Your task to perform on an android device: create a new album in the google photos Image 0: 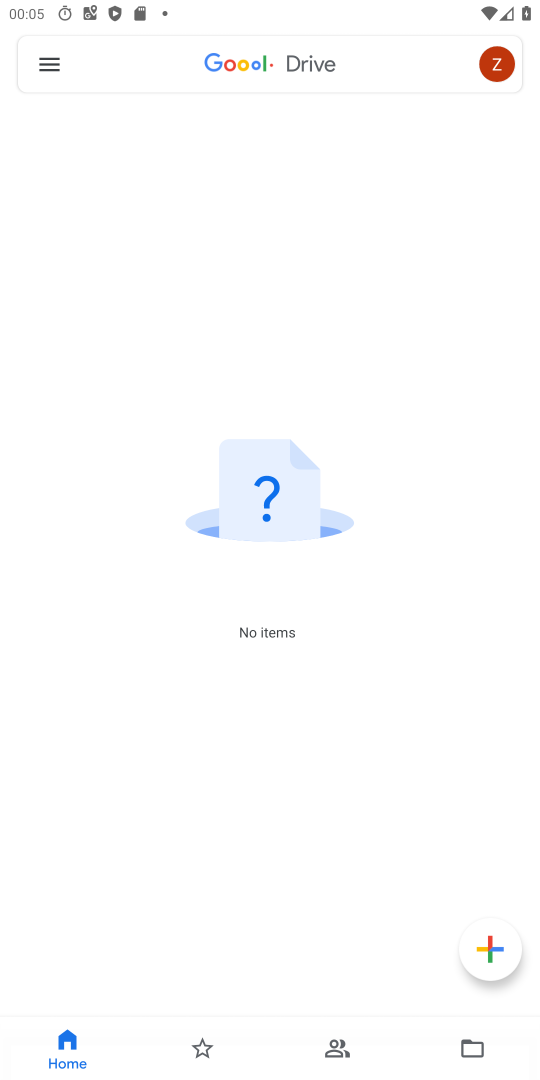
Step 0: press home button
Your task to perform on an android device: create a new album in the google photos Image 1: 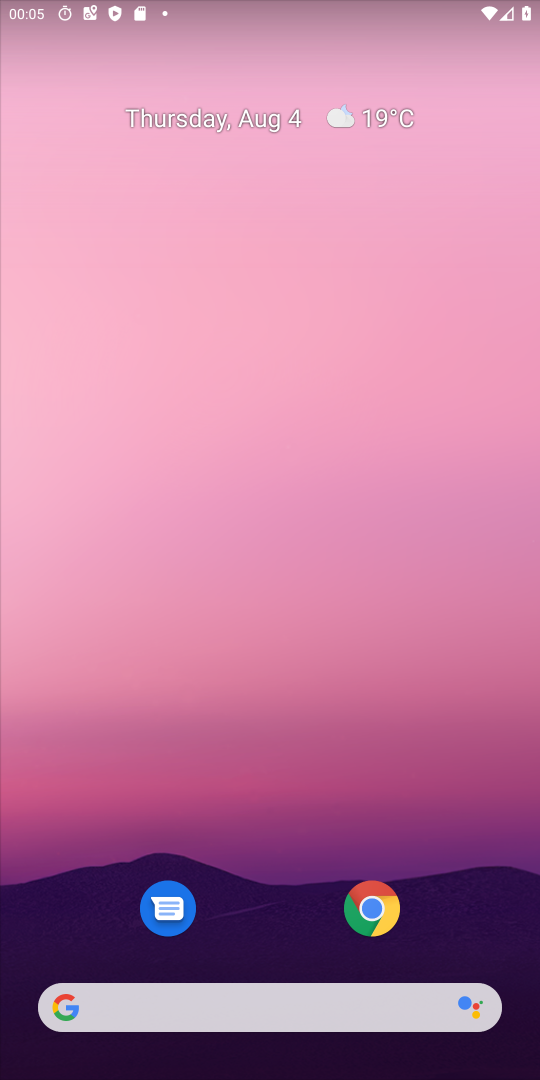
Step 1: drag from (314, 1043) to (193, 392)
Your task to perform on an android device: create a new album in the google photos Image 2: 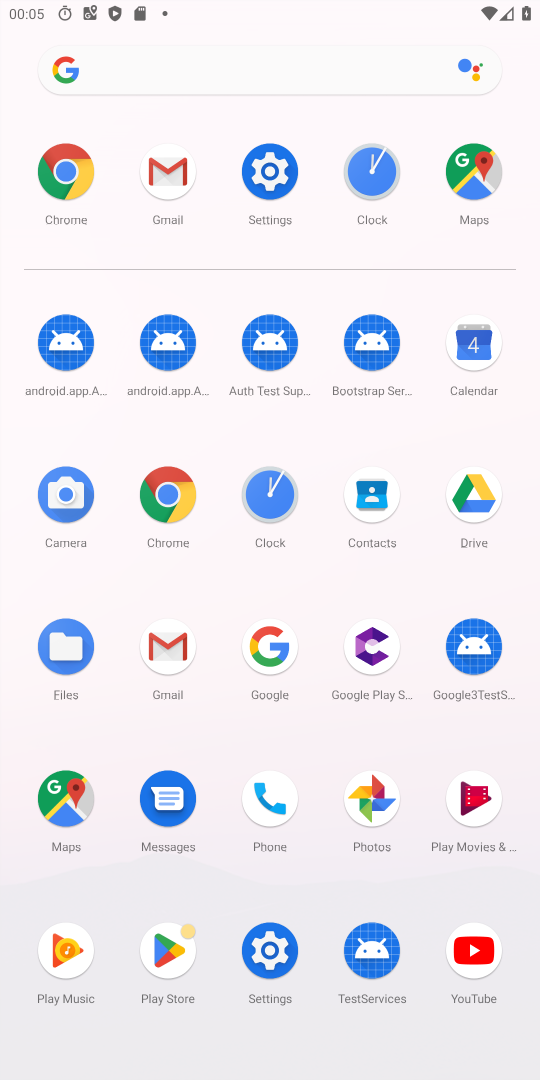
Step 2: click (383, 817)
Your task to perform on an android device: create a new album in the google photos Image 3: 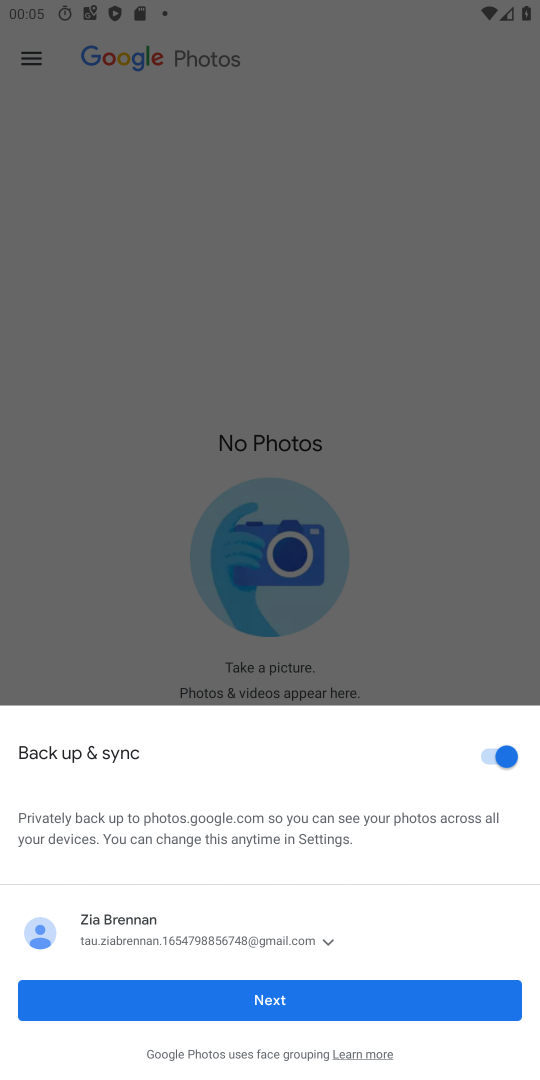
Step 3: click (348, 991)
Your task to perform on an android device: create a new album in the google photos Image 4: 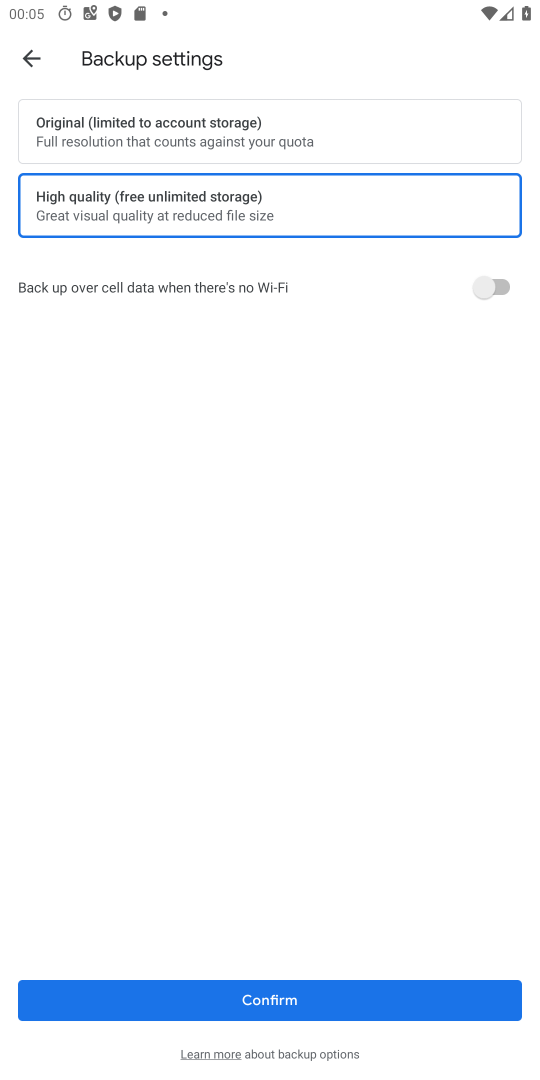
Step 4: click (256, 993)
Your task to perform on an android device: create a new album in the google photos Image 5: 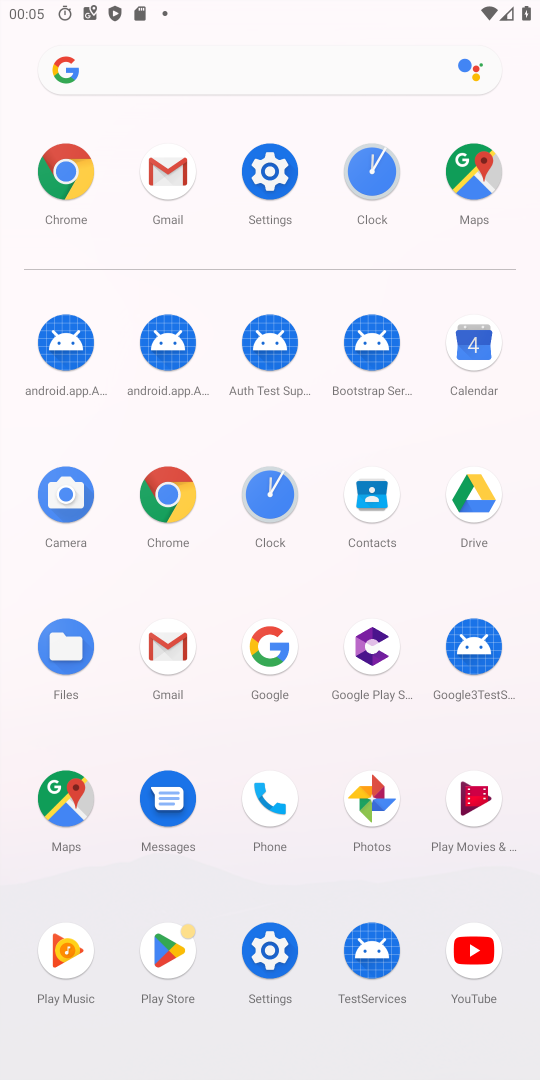
Step 5: click (365, 802)
Your task to perform on an android device: create a new album in the google photos Image 6: 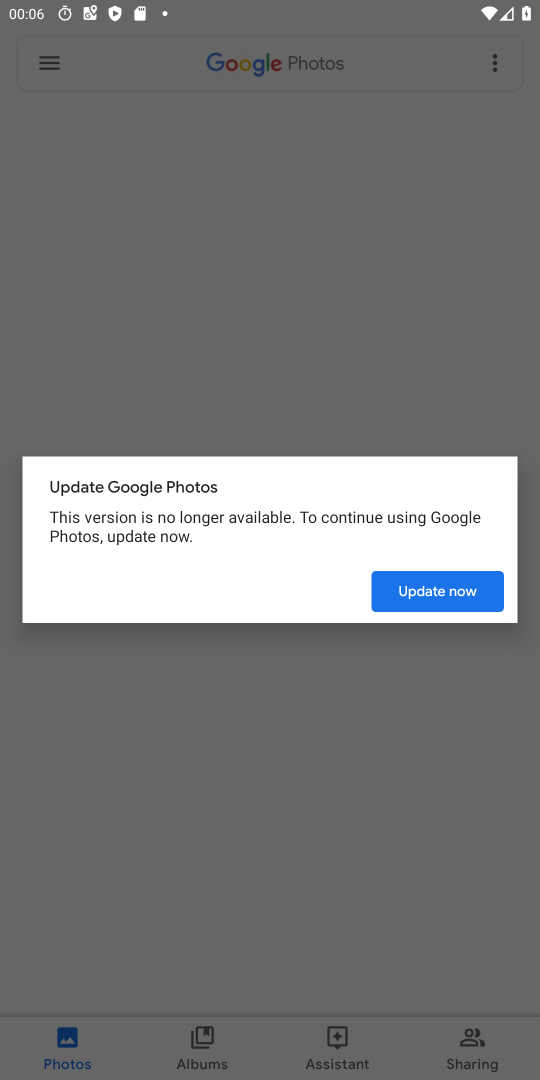
Step 6: click (437, 602)
Your task to perform on an android device: create a new album in the google photos Image 7: 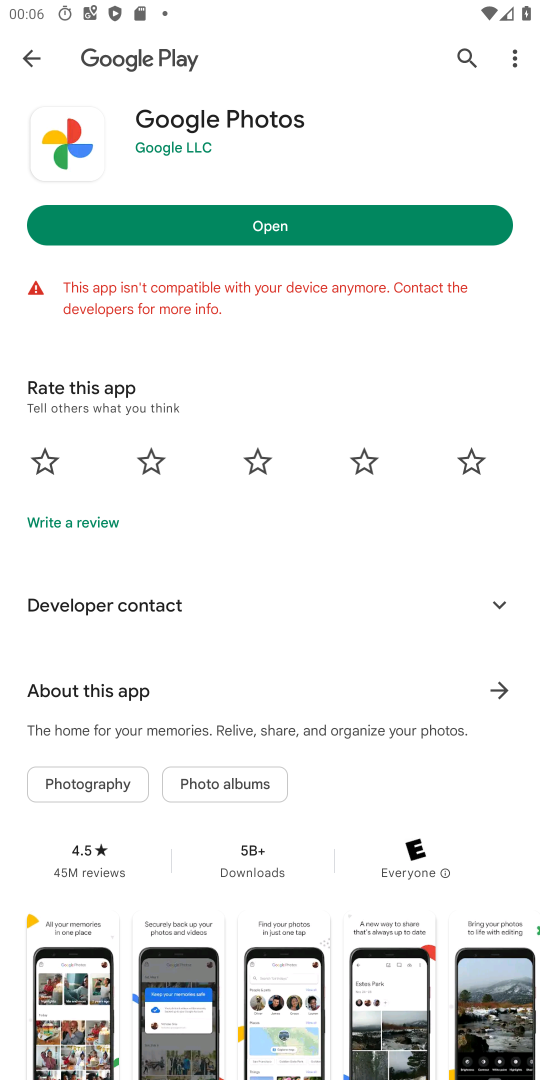
Step 7: click (215, 223)
Your task to perform on an android device: create a new album in the google photos Image 8: 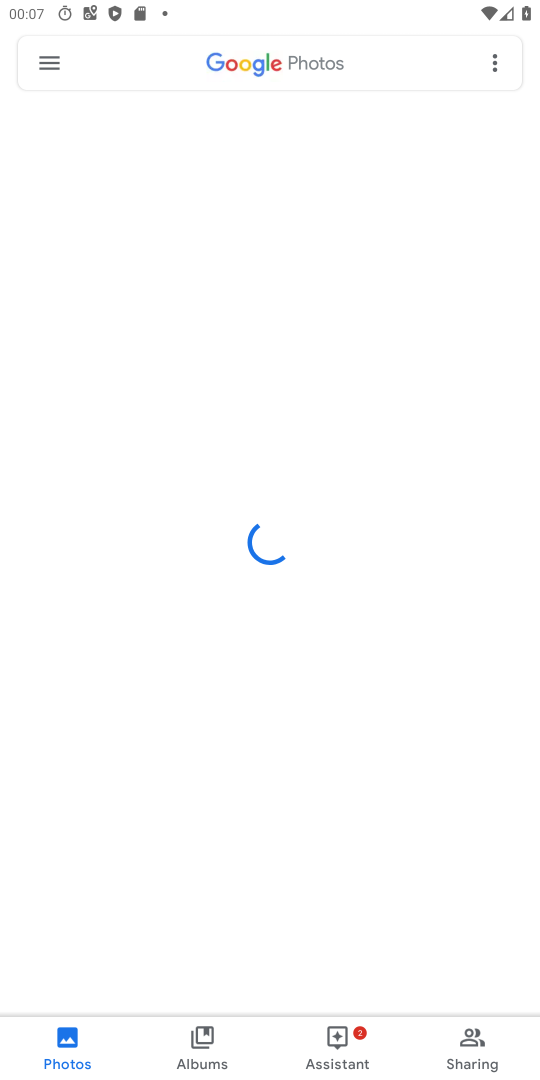
Step 8: task complete